Your task to perform on an android device: See recent photos Image 0: 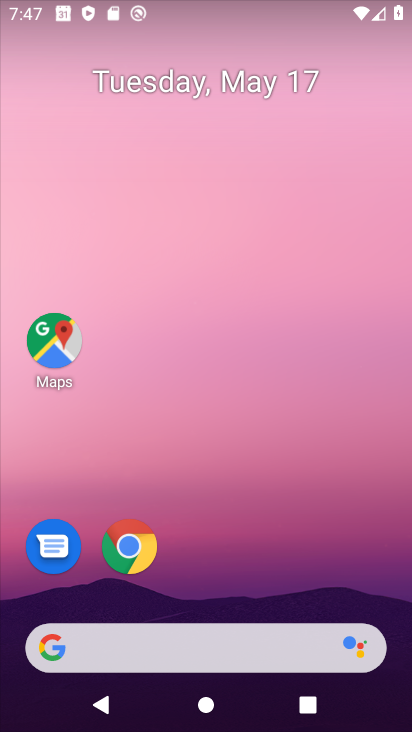
Step 0: drag from (243, 575) to (126, 163)
Your task to perform on an android device: See recent photos Image 1: 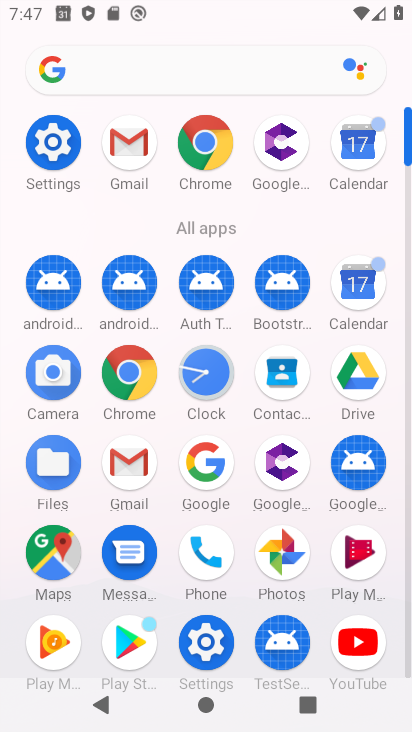
Step 1: click (282, 553)
Your task to perform on an android device: See recent photos Image 2: 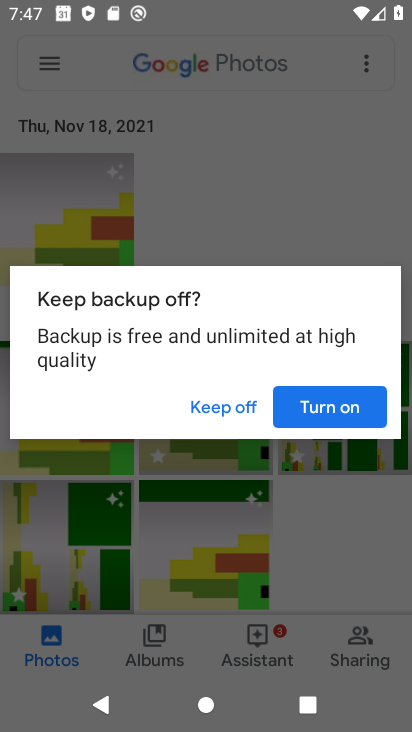
Step 2: click (312, 413)
Your task to perform on an android device: See recent photos Image 3: 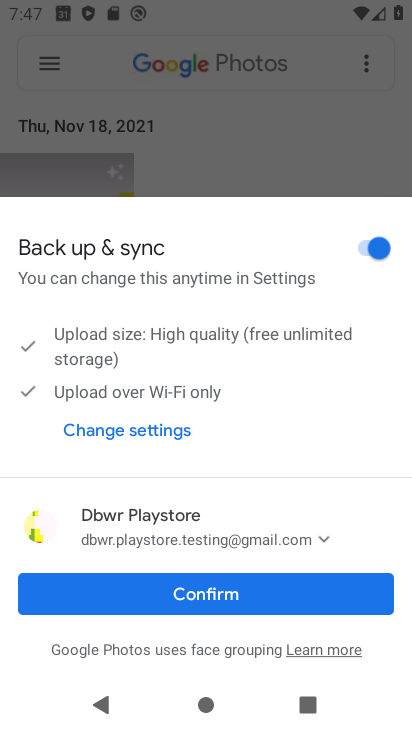
Step 3: click (208, 586)
Your task to perform on an android device: See recent photos Image 4: 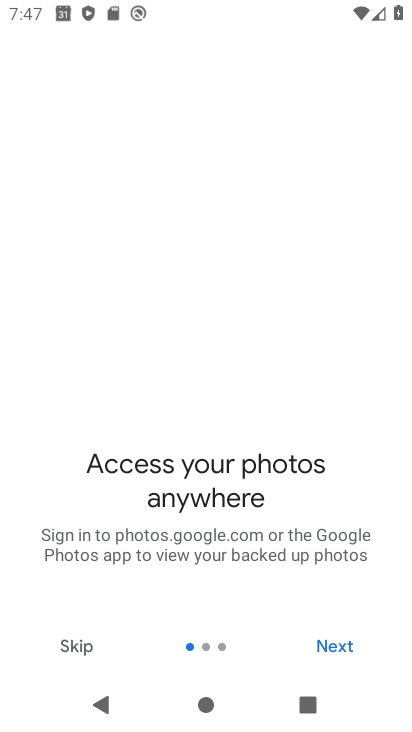
Step 4: click (336, 640)
Your task to perform on an android device: See recent photos Image 5: 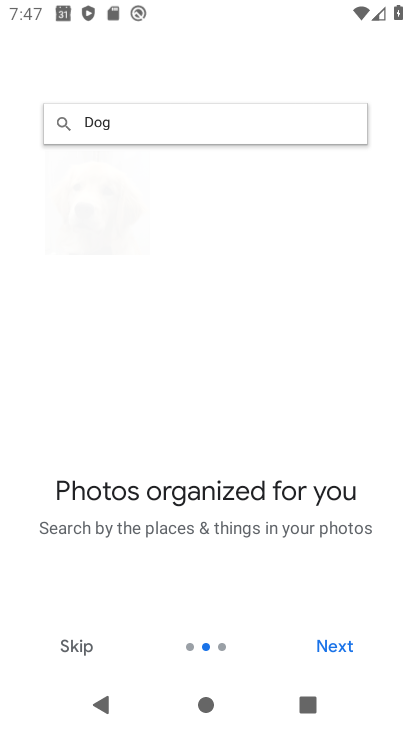
Step 5: click (336, 640)
Your task to perform on an android device: See recent photos Image 6: 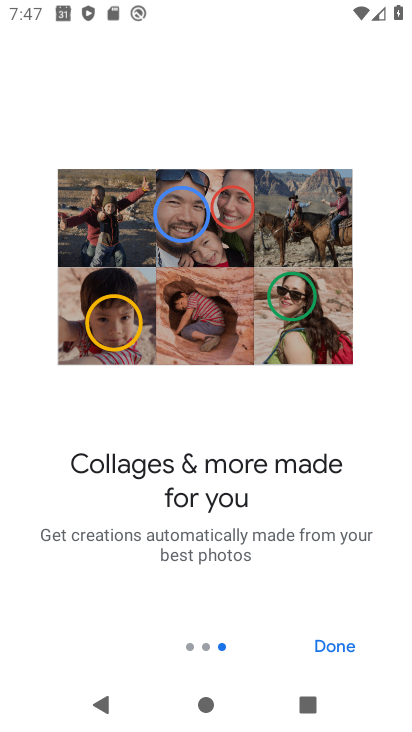
Step 6: click (336, 640)
Your task to perform on an android device: See recent photos Image 7: 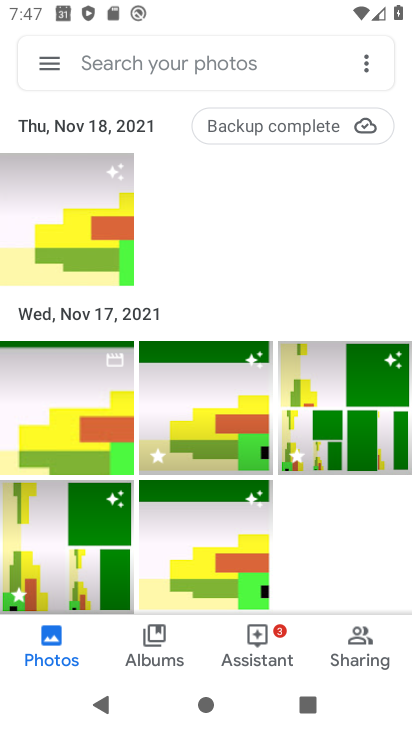
Step 7: click (60, 249)
Your task to perform on an android device: See recent photos Image 8: 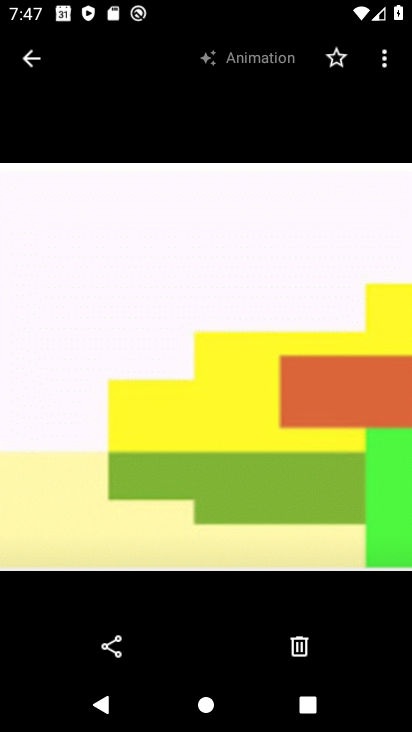
Step 8: task complete